Your task to perform on an android device: Open a new tab in the chrome app Image 0: 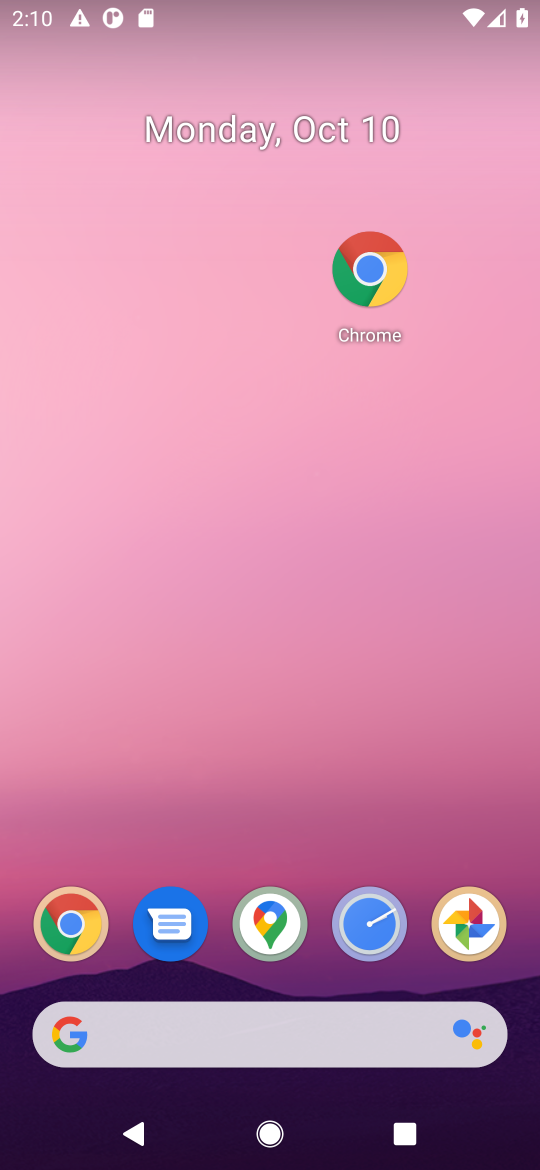
Step 0: drag from (327, 816) to (299, 2)
Your task to perform on an android device: Open a new tab in the chrome app Image 1: 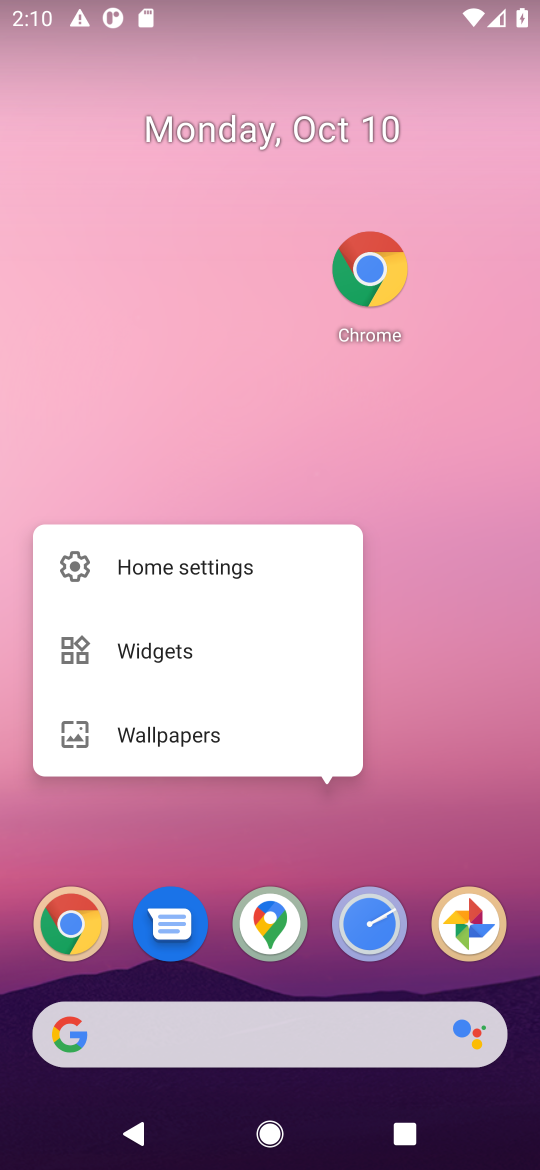
Step 1: click (483, 757)
Your task to perform on an android device: Open a new tab in the chrome app Image 2: 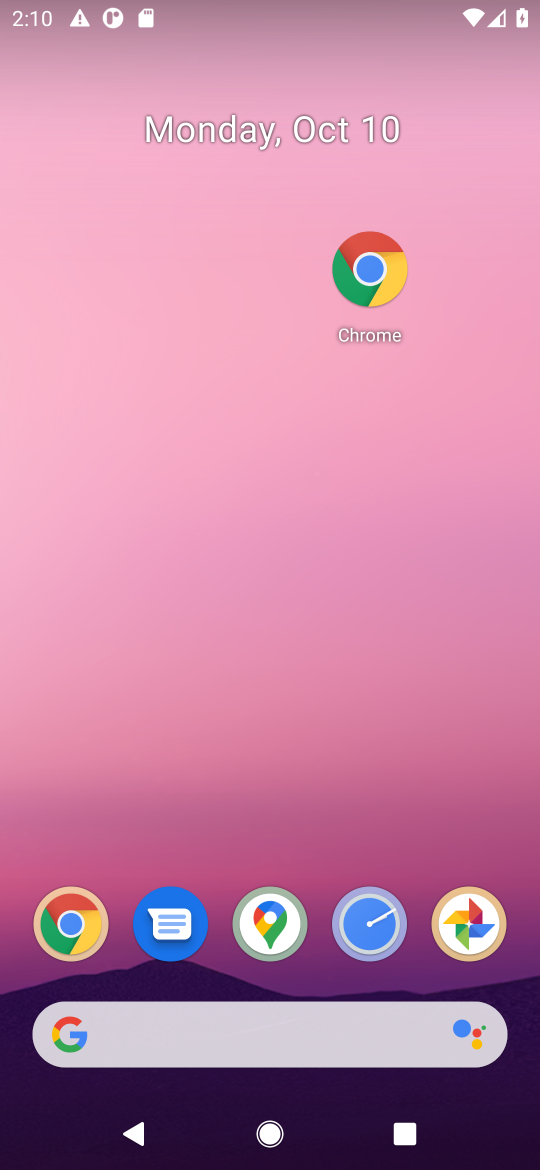
Step 2: drag from (403, 876) to (374, 10)
Your task to perform on an android device: Open a new tab in the chrome app Image 3: 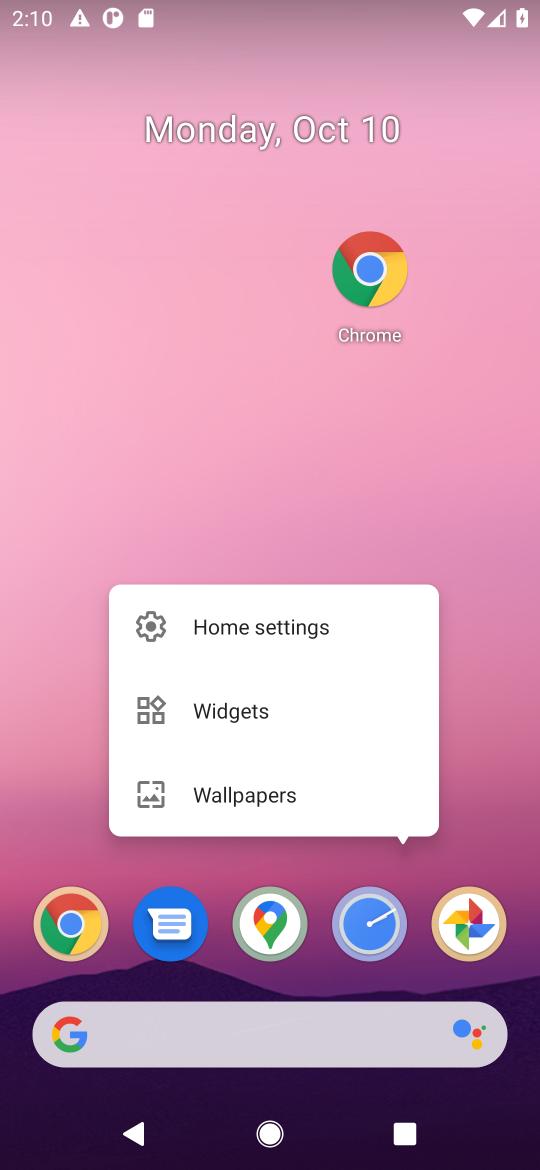
Step 3: click (479, 804)
Your task to perform on an android device: Open a new tab in the chrome app Image 4: 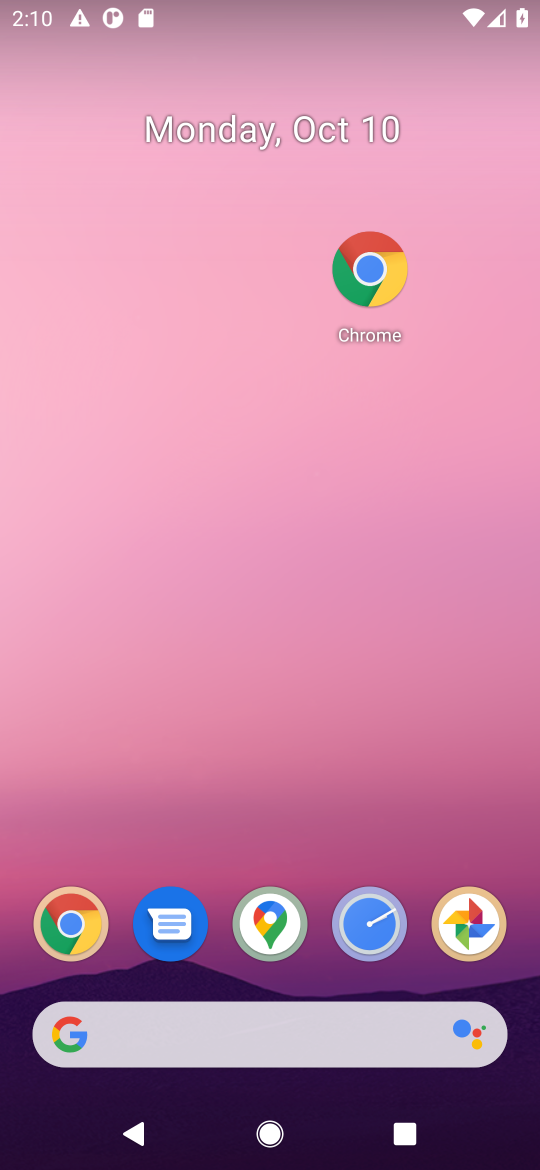
Step 4: drag from (424, 892) to (430, 25)
Your task to perform on an android device: Open a new tab in the chrome app Image 5: 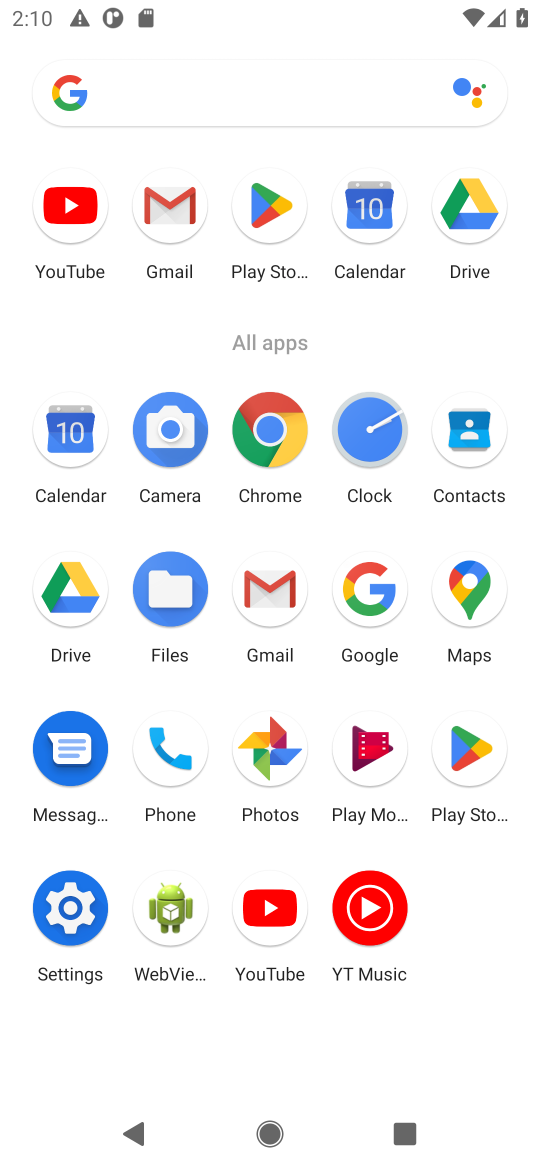
Step 5: click (266, 416)
Your task to perform on an android device: Open a new tab in the chrome app Image 6: 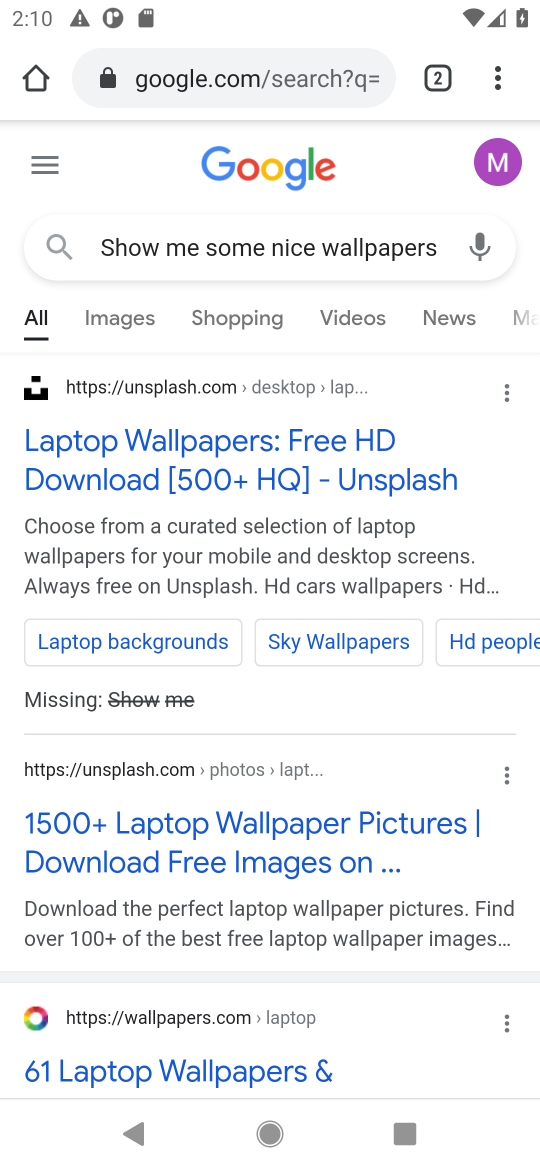
Step 6: click (270, 67)
Your task to perform on an android device: Open a new tab in the chrome app Image 7: 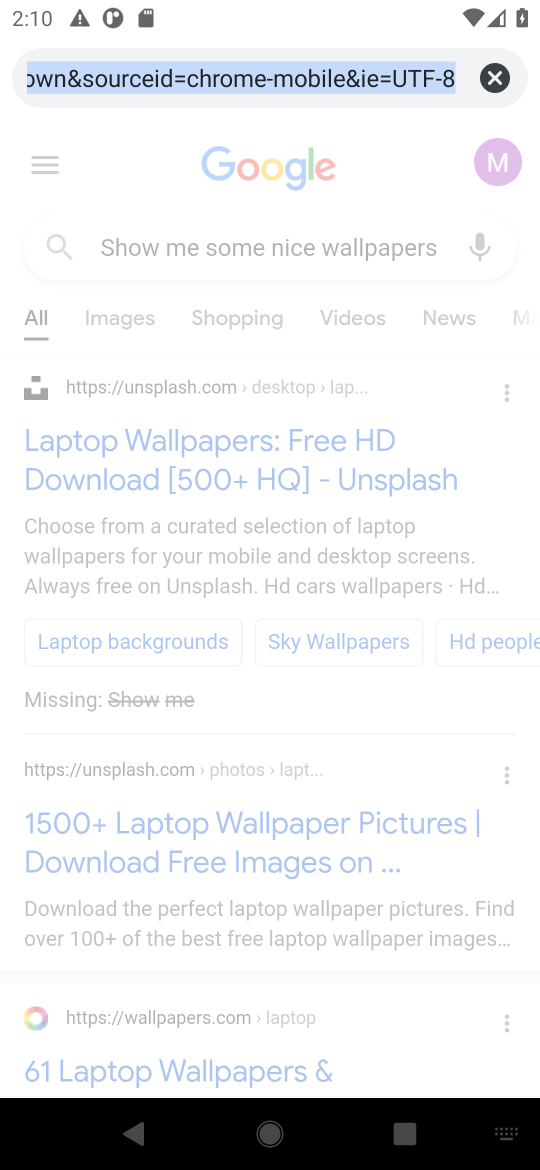
Step 7: click (492, 72)
Your task to perform on an android device: Open a new tab in the chrome app Image 8: 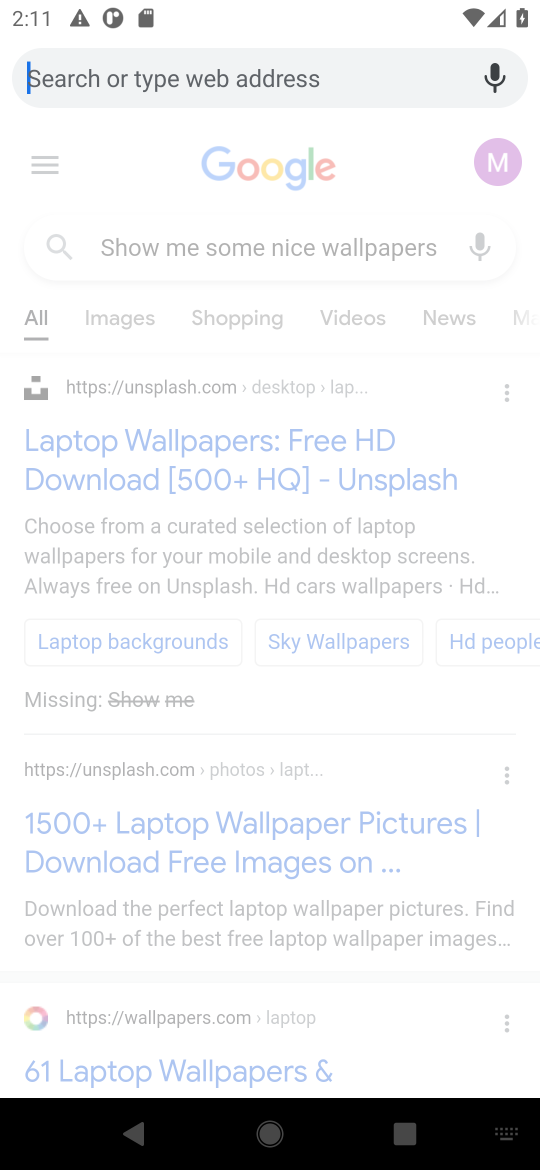
Step 8: task complete